Your task to perform on an android device: set the stopwatch Image 0: 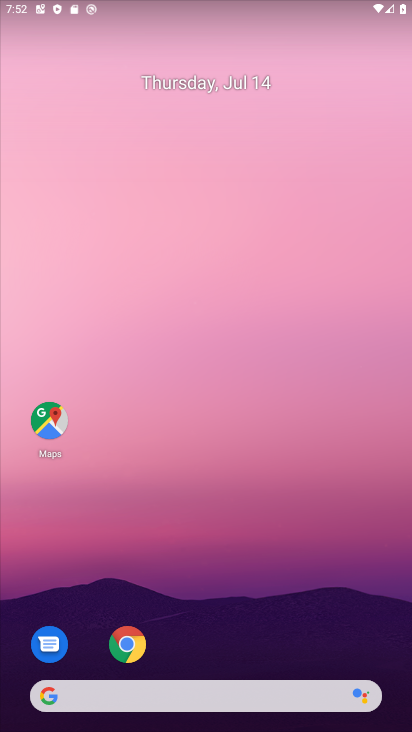
Step 0: drag from (221, 701) to (321, 202)
Your task to perform on an android device: set the stopwatch Image 1: 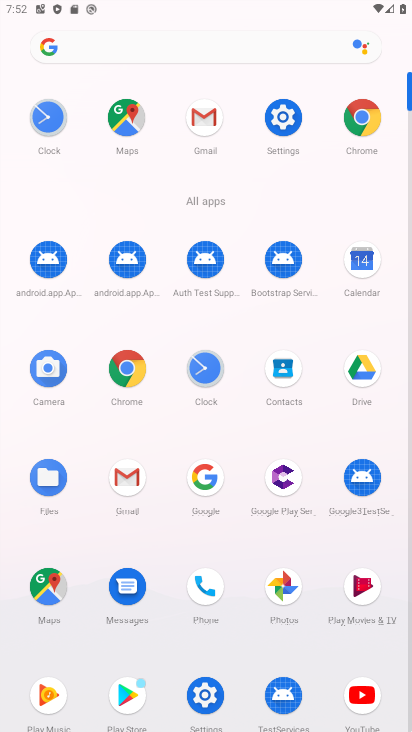
Step 1: click (207, 370)
Your task to perform on an android device: set the stopwatch Image 2: 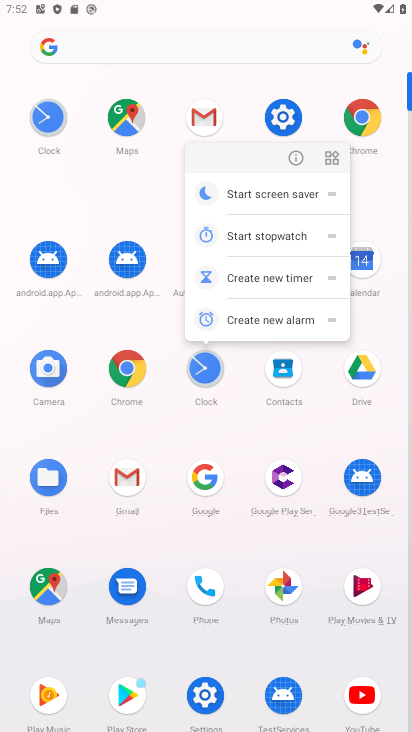
Step 2: click (209, 372)
Your task to perform on an android device: set the stopwatch Image 3: 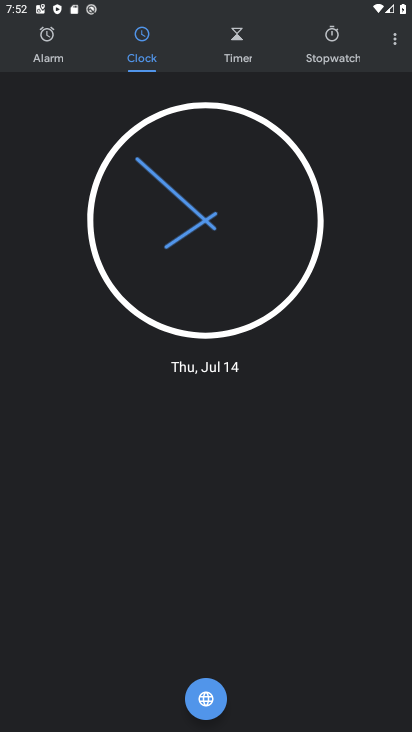
Step 3: click (325, 52)
Your task to perform on an android device: set the stopwatch Image 4: 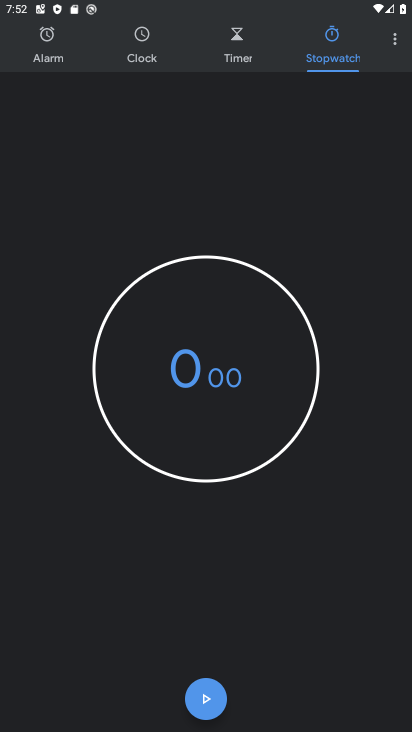
Step 4: click (206, 349)
Your task to perform on an android device: set the stopwatch Image 5: 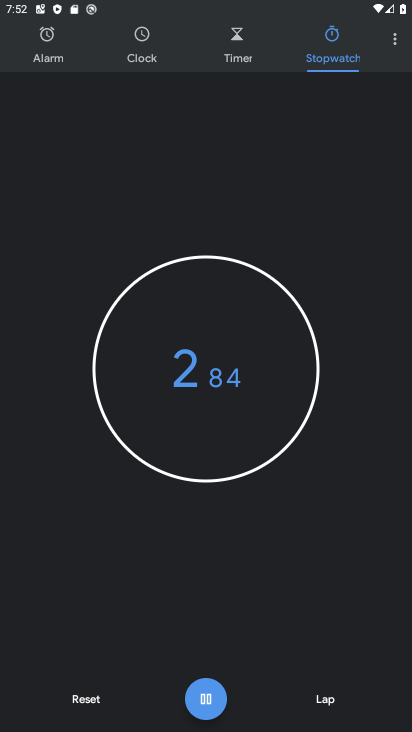
Step 5: click (203, 700)
Your task to perform on an android device: set the stopwatch Image 6: 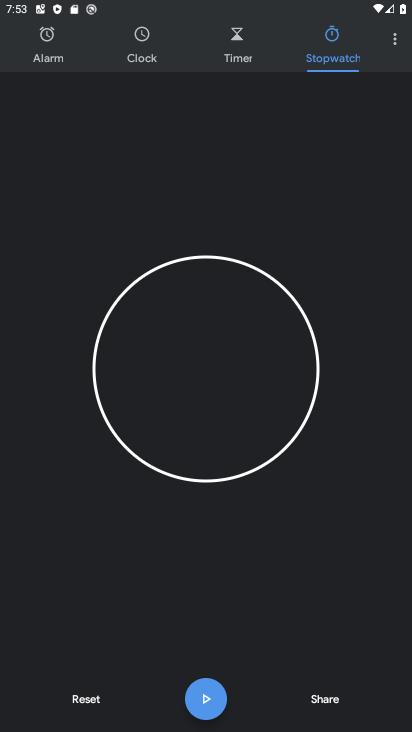
Step 6: task complete